Your task to perform on an android device: delete browsing data in the chrome app Image 0: 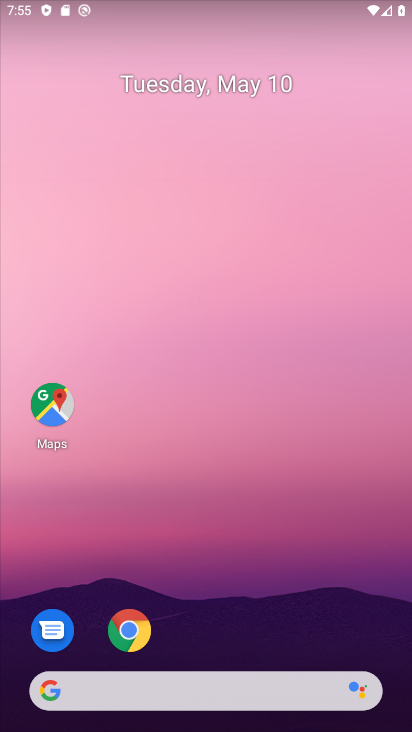
Step 0: click (139, 620)
Your task to perform on an android device: delete browsing data in the chrome app Image 1: 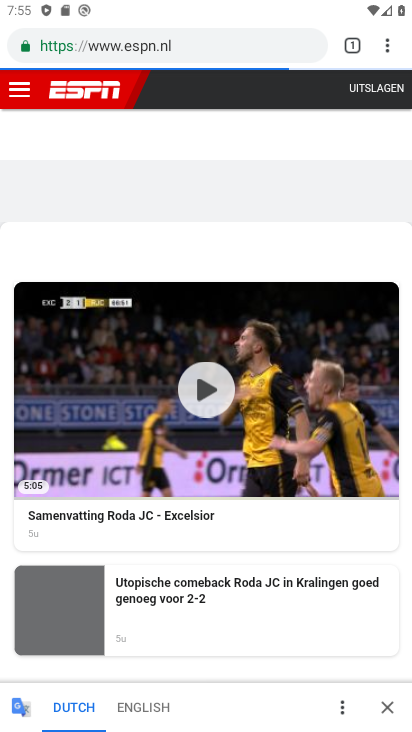
Step 1: click (385, 47)
Your task to perform on an android device: delete browsing data in the chrome app Image 2: 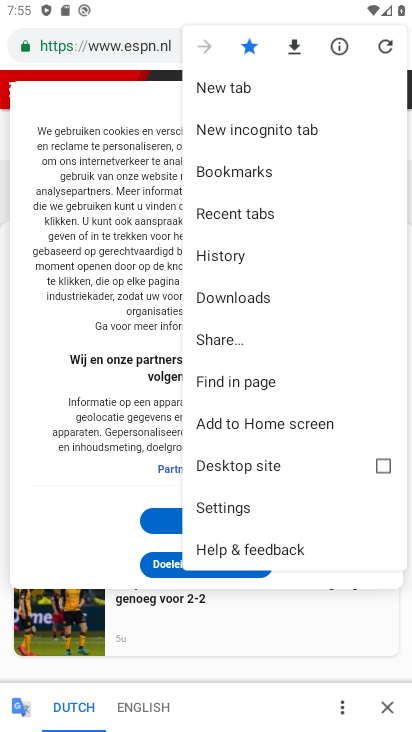
Step 2: click (240, 267)
Your task to perform on an android device: delete browsing data in the chrome app Image 3: 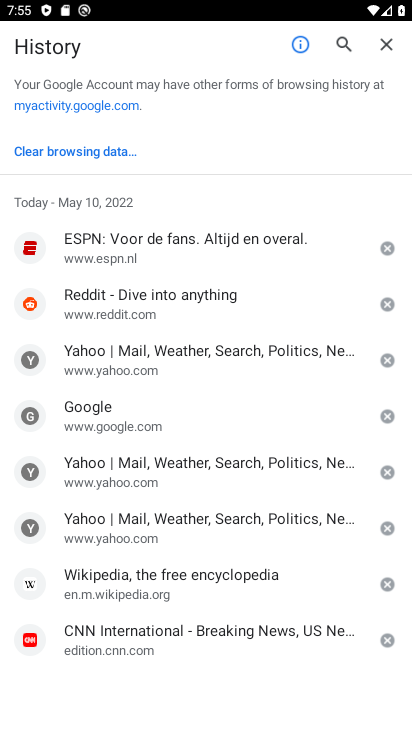
Step 3: click (88, 150)
Your task to perform on an android device: delete browsing data in the chrome app Image 4: 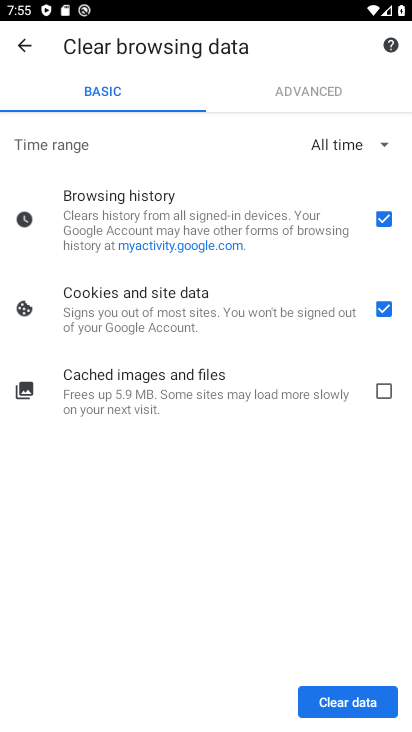
Step 4: click (319, 700)
Your task to perform on an android device: delete browsing data in the chrome app Image 5: 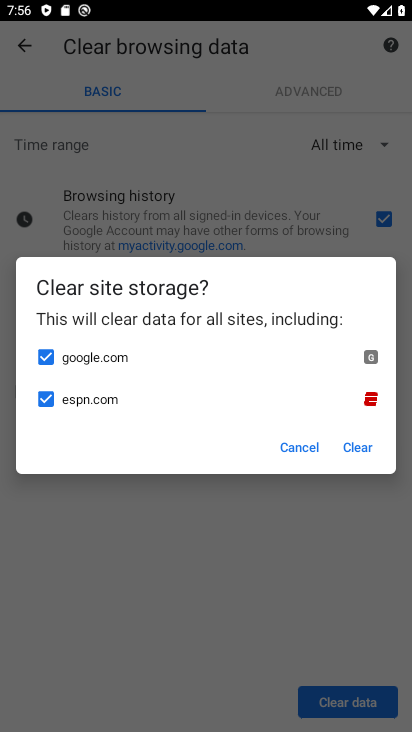
Step 5: click (362, 443)
Your task to perform on an android device: delete browsing data in the chrome app Image 6: 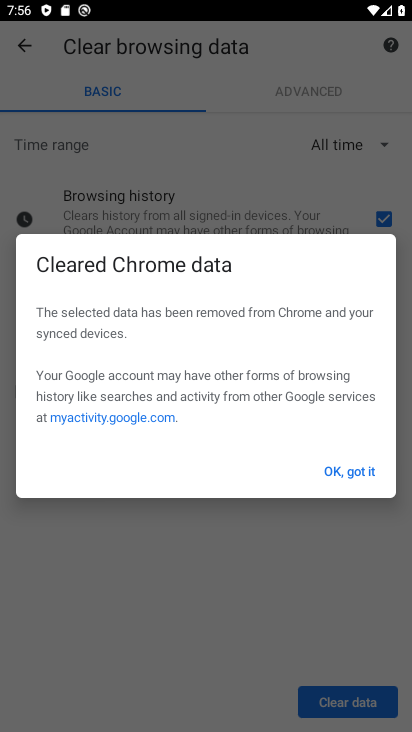
Step 6: task complete